Your task to perform on an android device: turn on location history Image 0: 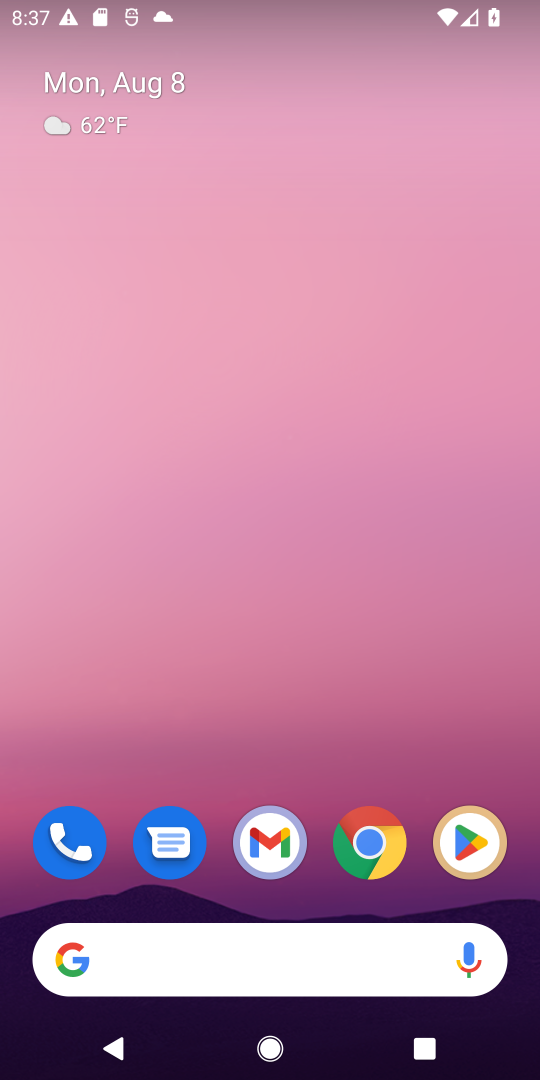
Step 0: drag from (309, 752) to (302, 7)
Your task to perform on an android device: turn on location history Image 1: 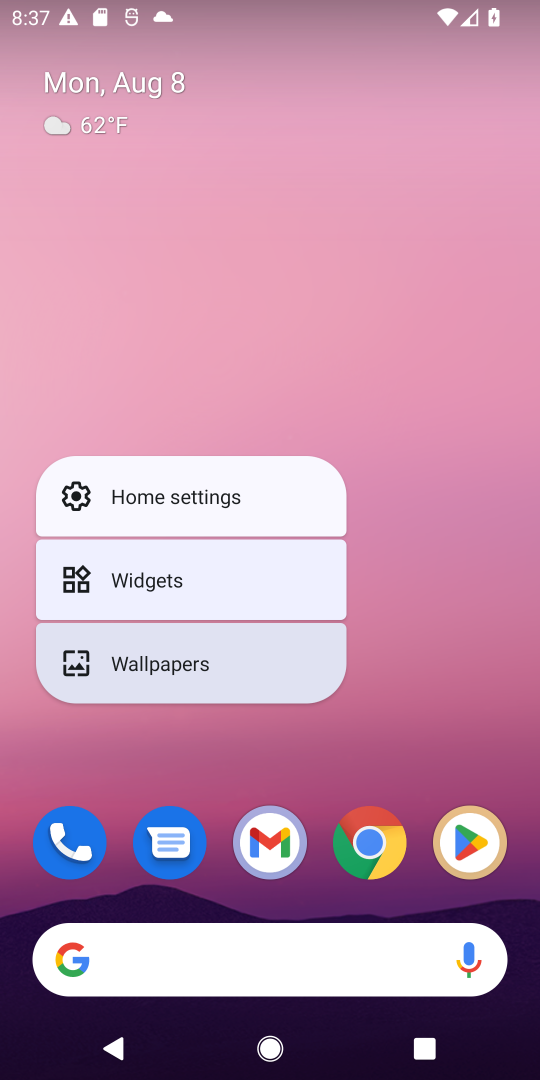
Step 1: click (404, 682)
Your task to perform on an android device: turn on location history Image 2: 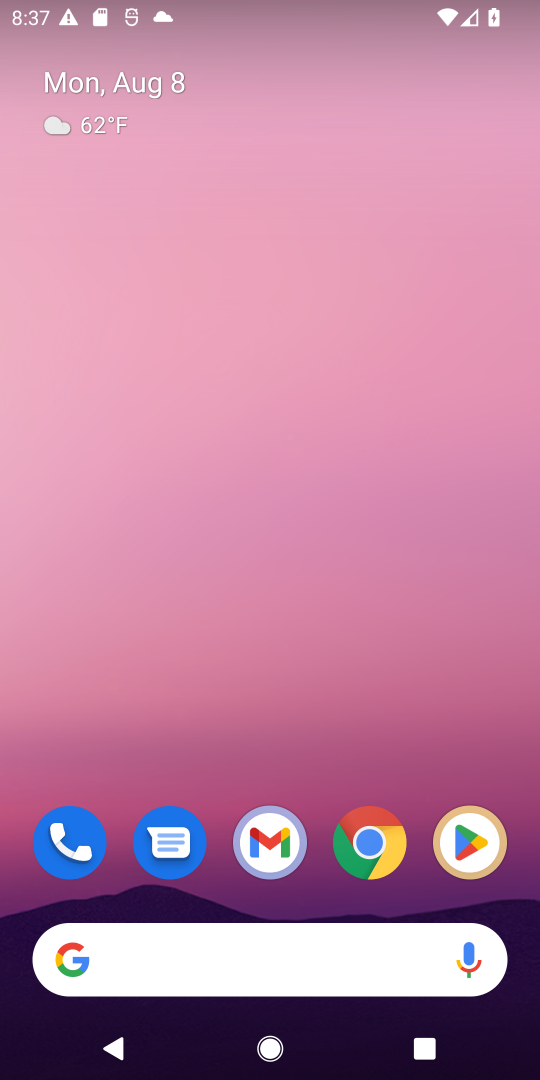
Step 2: drag from (337, 744) to (381, 0)
Your task to perform on an android device: turn on location history Image 3: 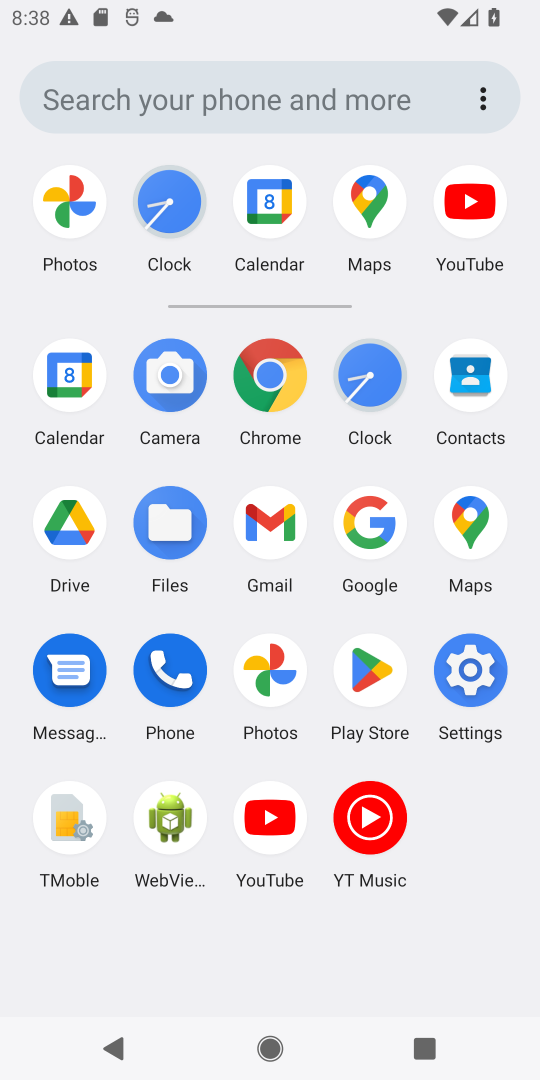
Step 3: click (471, 662)
Your task to perform on an android device: turn on location history Image 4: 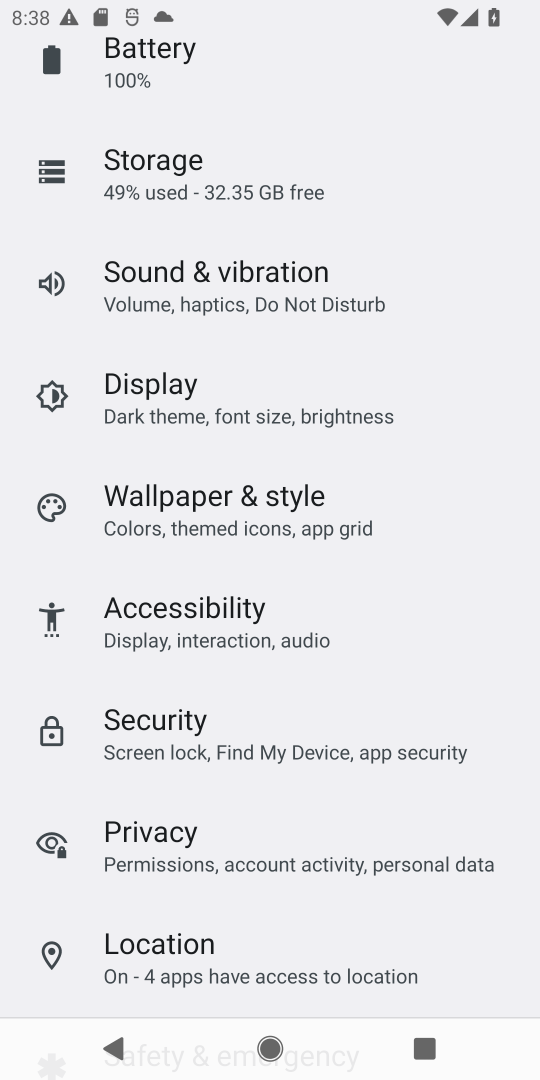
Step 4: click (253, 968)
Your task to perform on an android device: turn on location history Image 5: 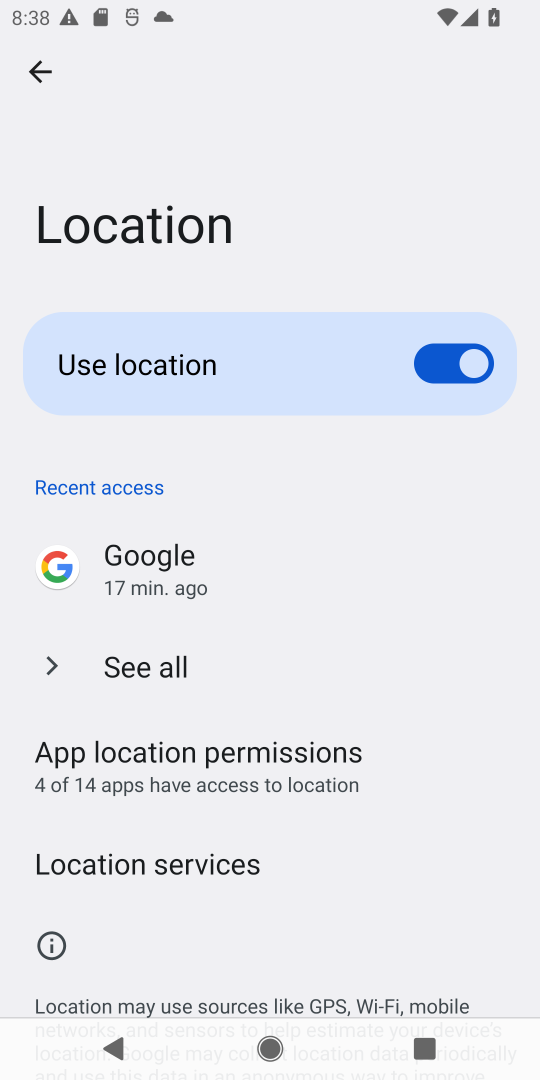
Step 5: drag from (276, 831) to (288, 476)
Your task to perform on an android device: turn on location history Image 6: 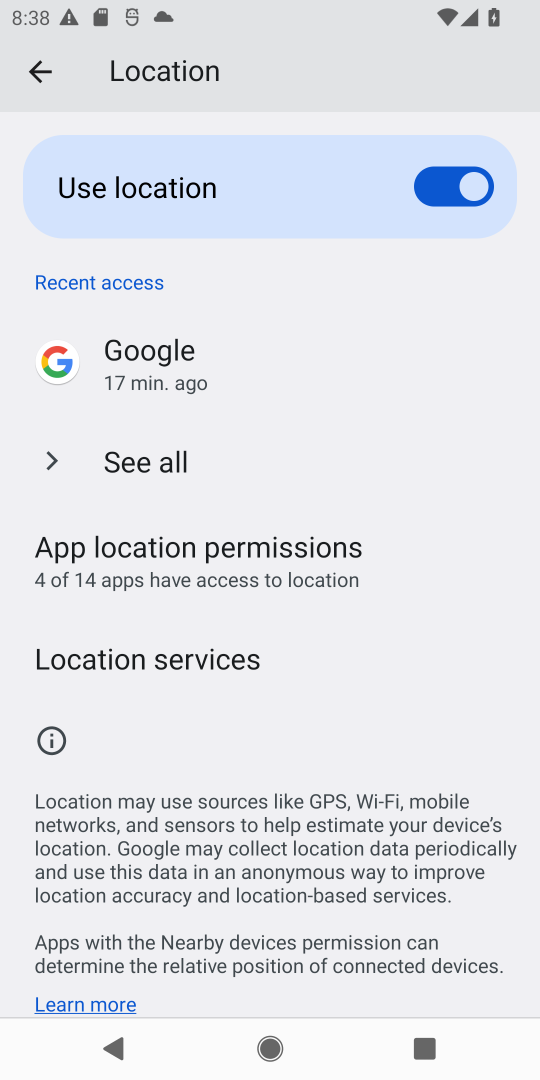
Step 6: click (259, 650)
Your task to perform on an android device: turn on location history Image 7: 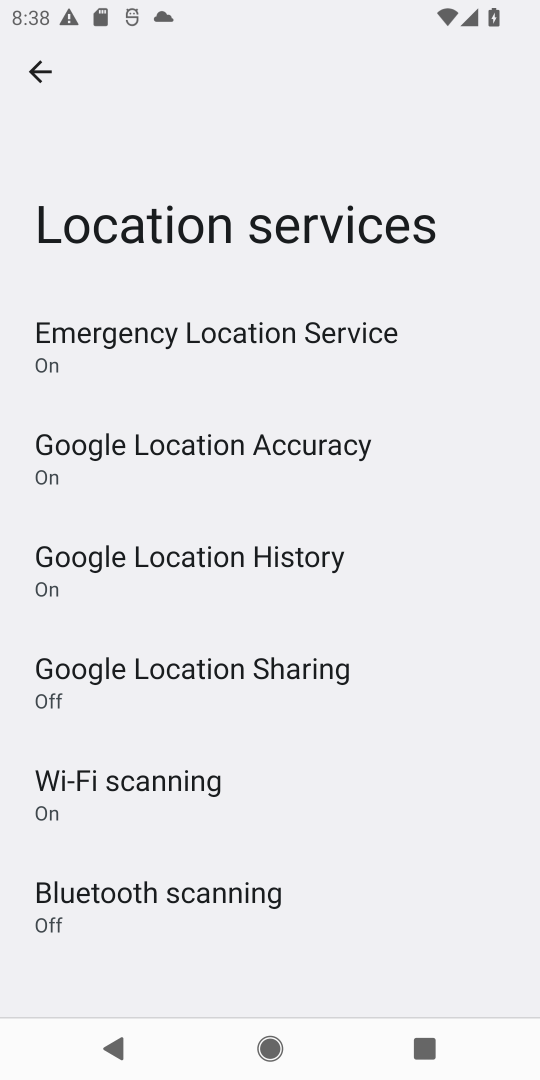
Step 7: task complete